Your task to perform on an android device: change text size in settings app Image 0: 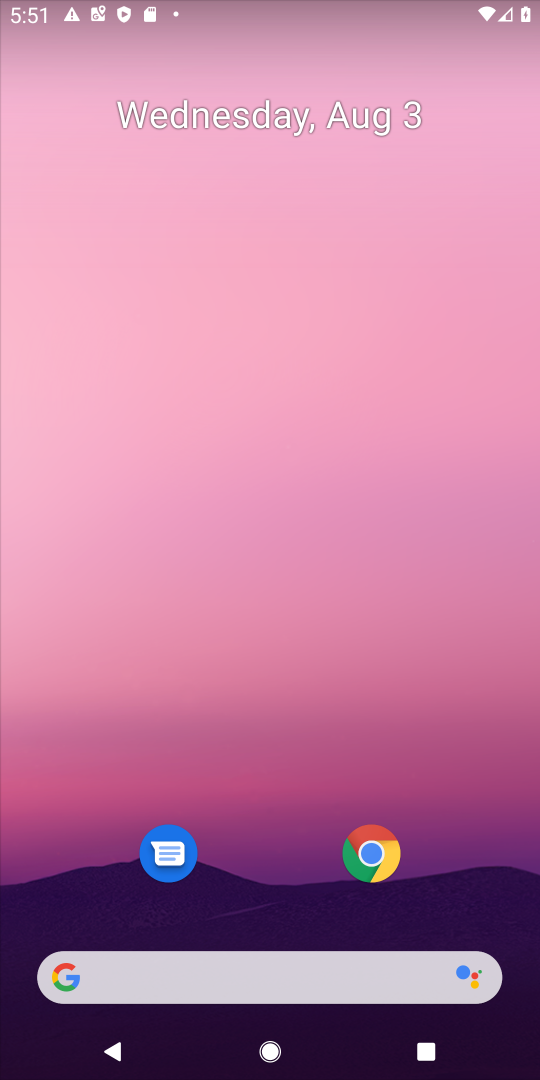
Step 0: drag from (446, 834) to (391, 236)
Your task to perform on an android device: change text size in settings app Image 1: 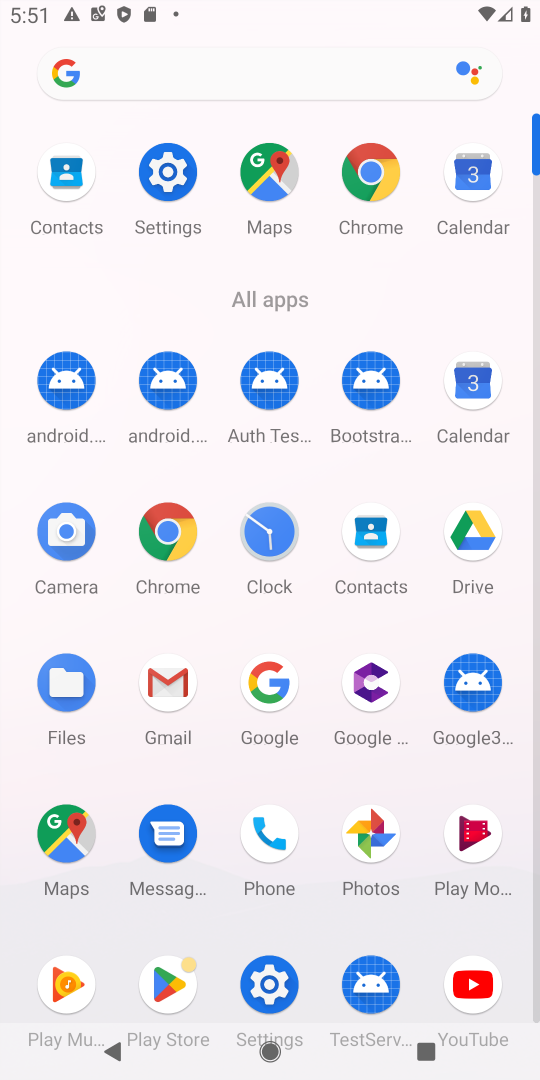
Step 1: click (267, 991)
Your task to perform on an android device: change text size in settings app Image 2: 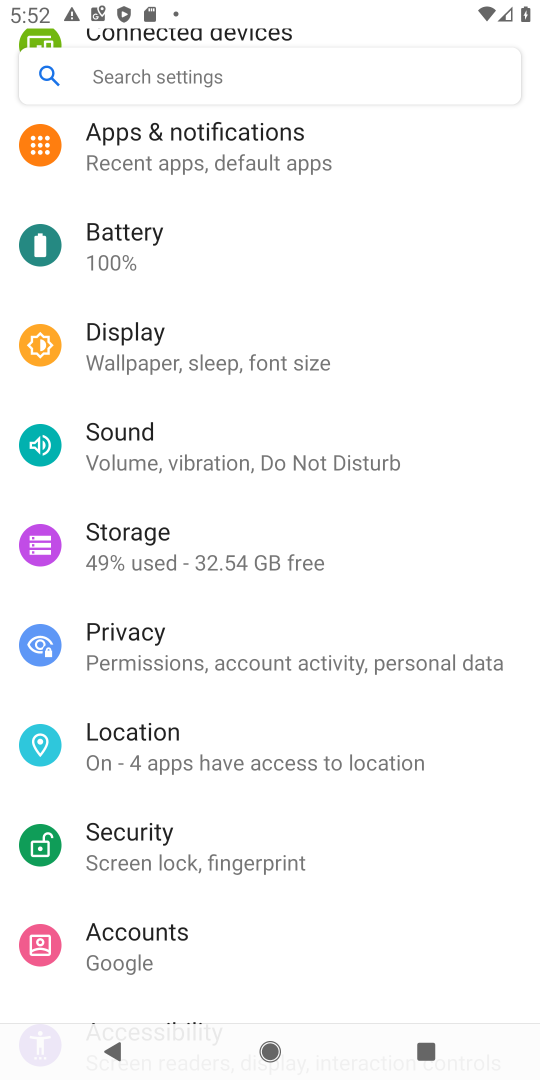
Step 2: drag from (343, 974) to (274, 587)
Your task to perform on an android device: change text size in settings app Image 3: 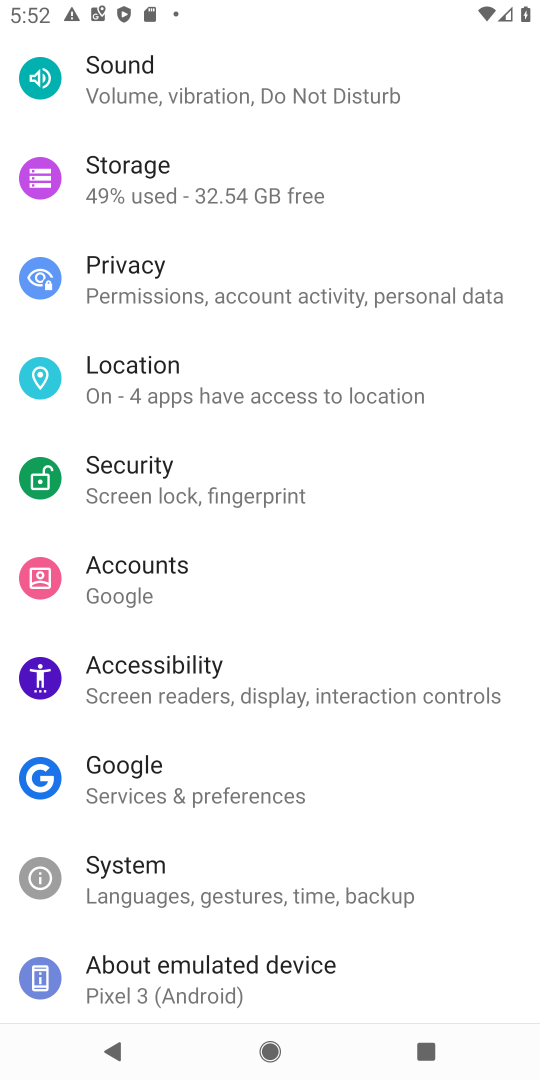
Step 3: drag from (350, 859) to (318, 448)
Your task to perform on an android device: change text size in settings app Image 4: 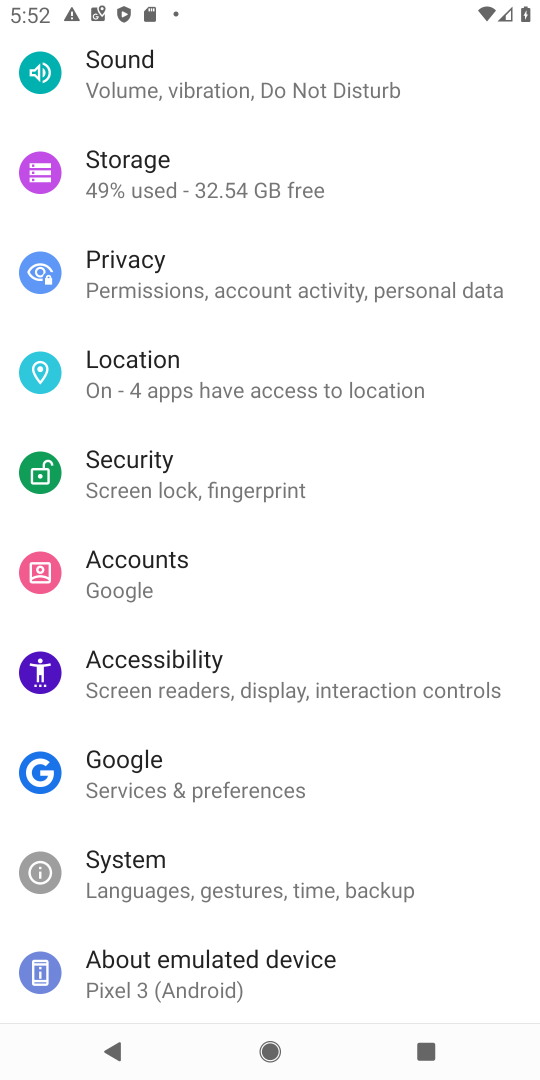
Step 4: drag from (173, 100) to (202, 595)
Your task to perform on an android device: change text size in settings app Image 5: 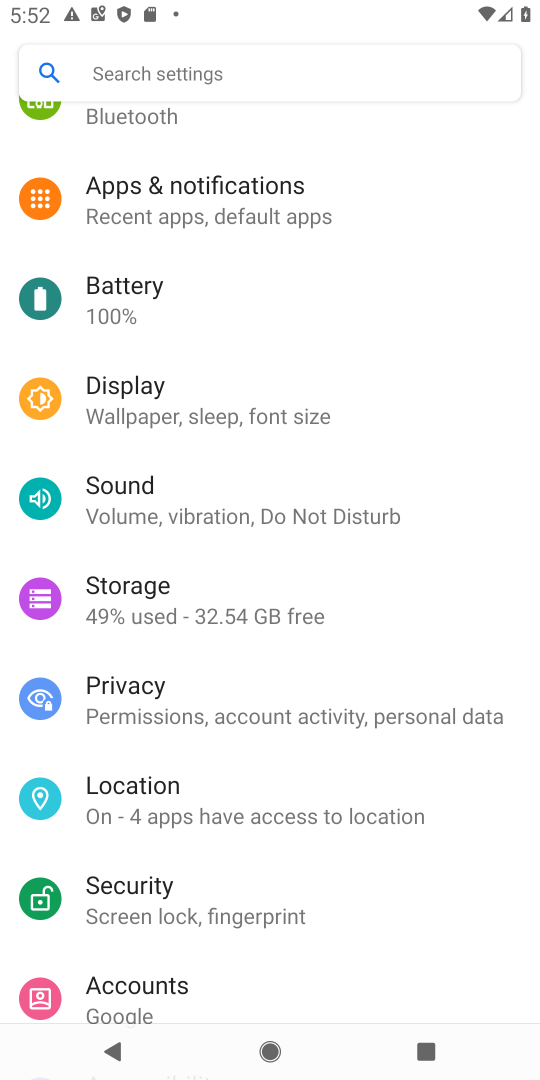
Step 5: click (140, 406)
Your task to perform on an android device: change text size in settings app Image 6: 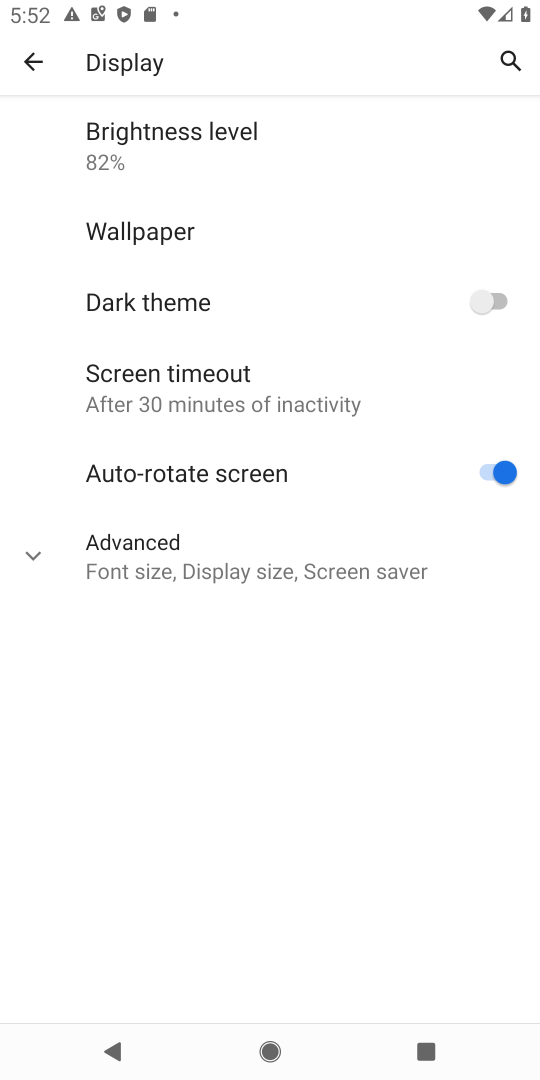
Step 6: click (174, 536)
Your task to perform on an android device: change text size in settings app Image 7: 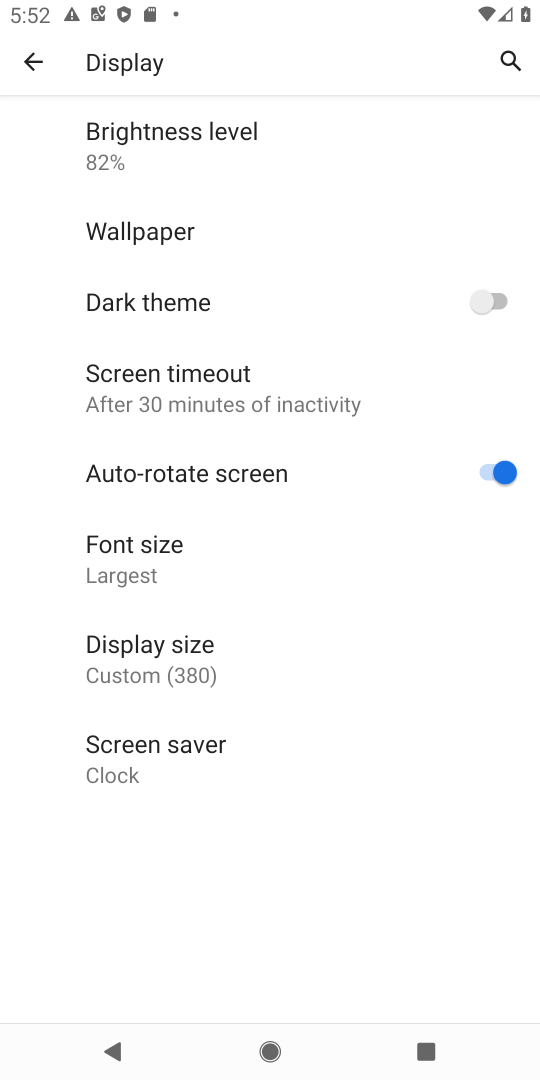
Step 7: click (179, 560)
Your task to perform on an android device: change text size in settings app Image 8: 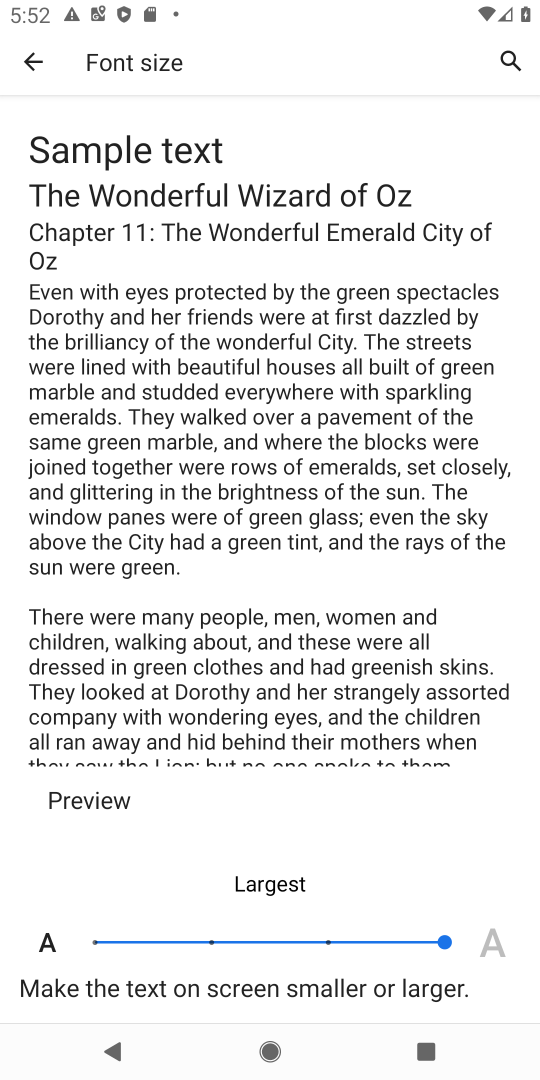
Step 8: task complete